Your task to perform on an android device: Open the map Image 0: 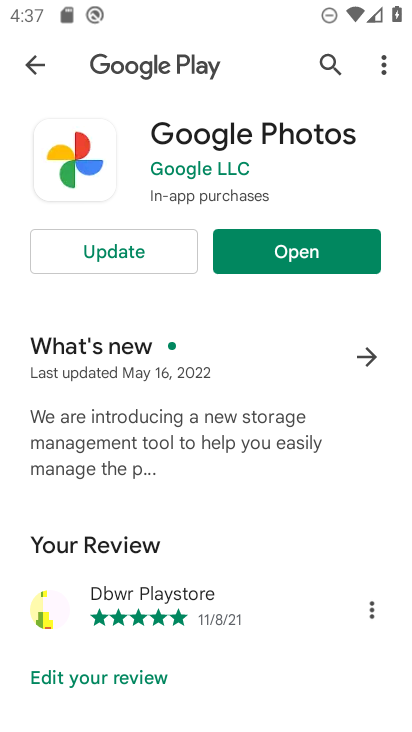
Step 0: press home button
Your task to perform on an android device: Open the map Image 1: 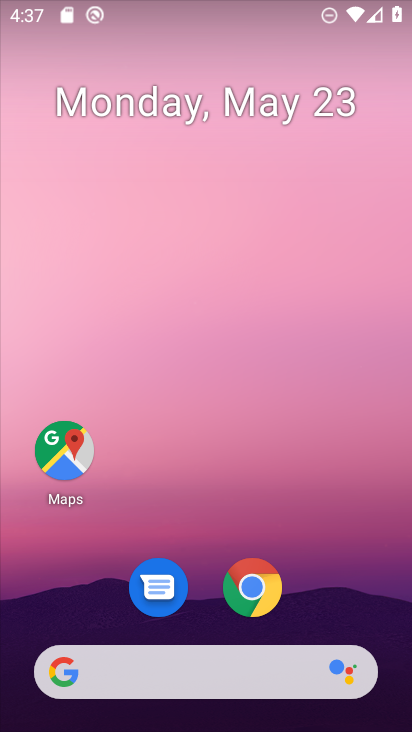
Step 1: click (73, 451)
Your task to perform on an android device: Open the map Image 2: 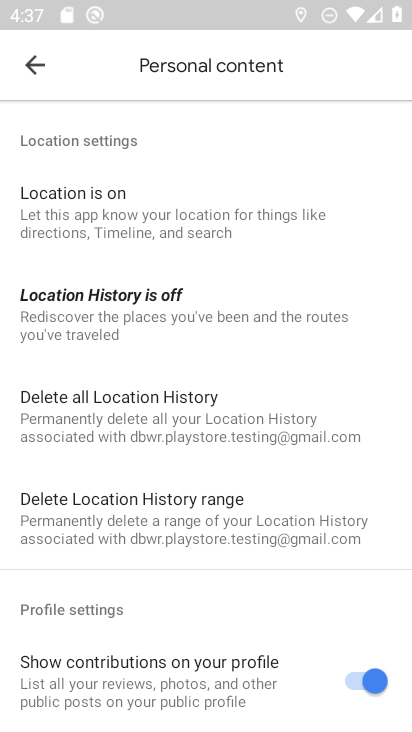
Step 2: click (34, 56)
Your task to perform on an android device: Open the map Image 3: 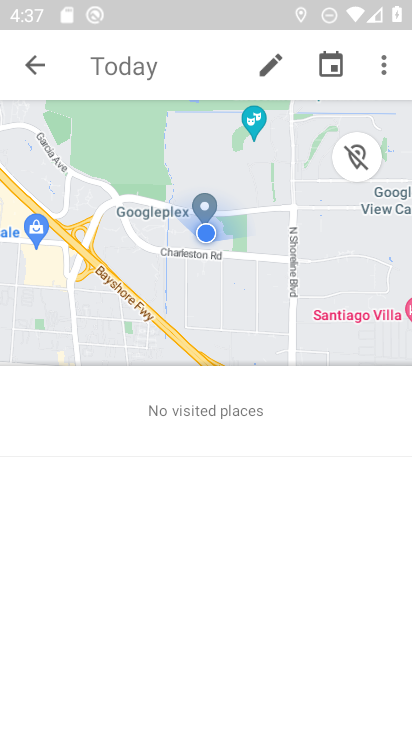
Step 3: click (37, 54)
Your task to perform on an android device: Open the map Image 4: 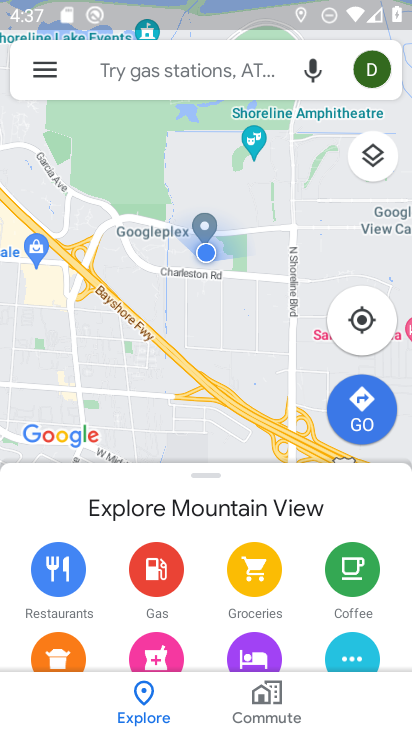
Step 4: task complete